Your task to perform on an android device: set the timer Image 0: 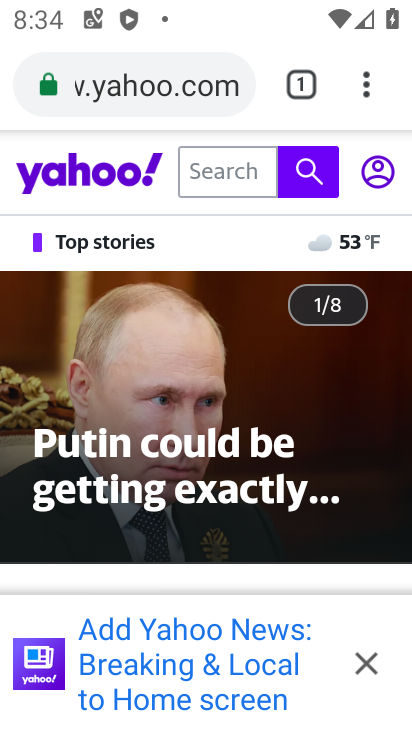
Step 0: press home button
Your task to perform on an android device: set the timer Image 1: 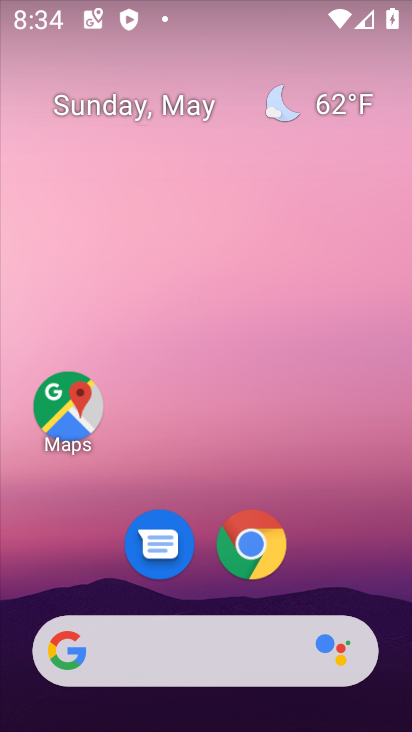
Step 1: drag from (298, 561) to (197, 186)
Your task to perform on an android device: set the timer Image 2: 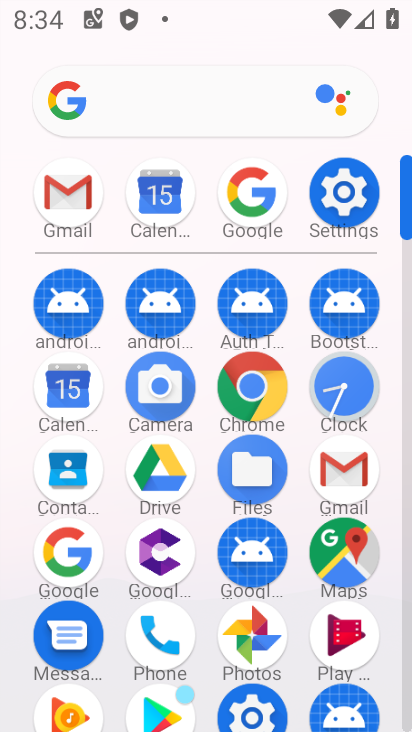
Step 2: click (339, 400)
Your task to perform on an android device: set the timer Image 3: 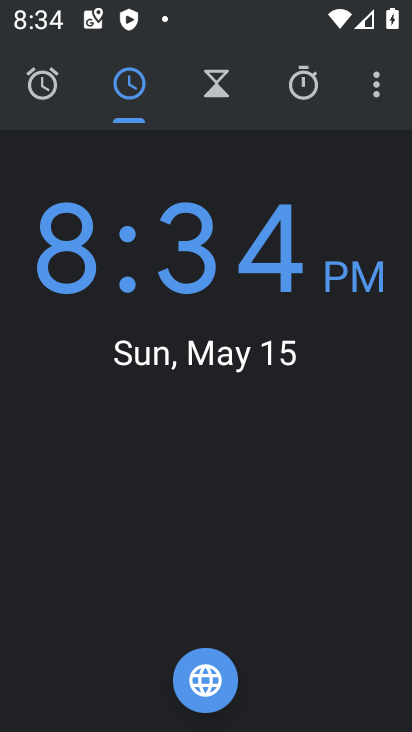
Step 3: click (225, 86)
Your task to perform on an android device: set the timer Image 4: 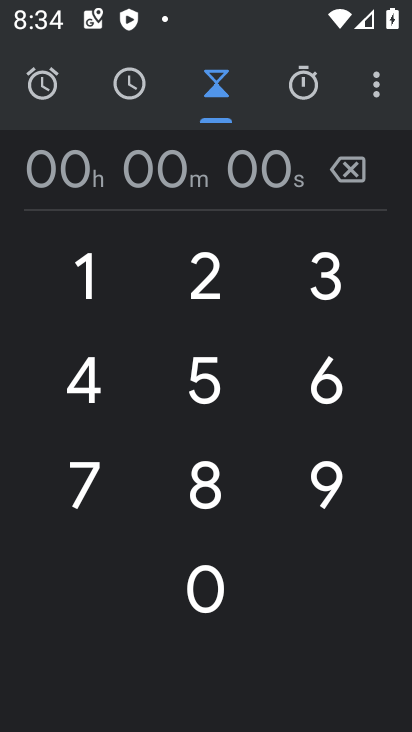
Step 4: click (197, 309)
Your task to perform on an android device: set the timer Image 5: 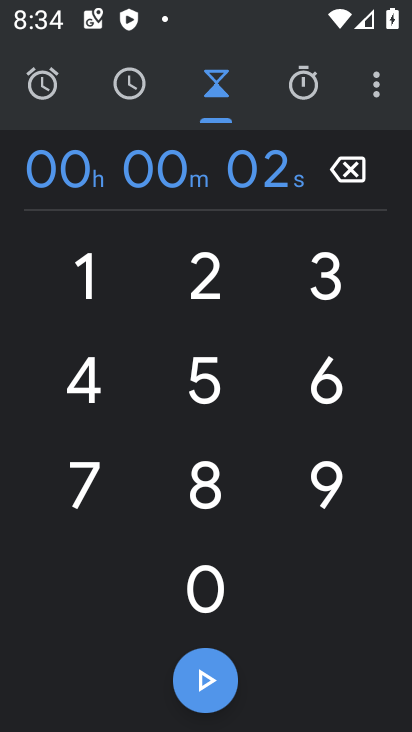
Step 5: click (219, 591)
Your task to perform on an android device: set the timer Image 6: 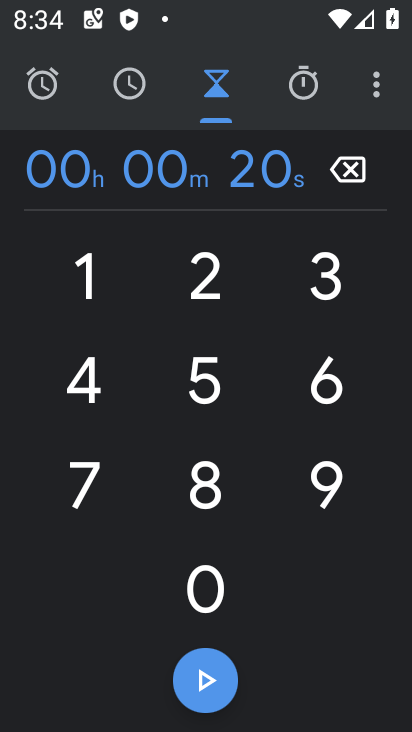
Step 6: click (203, 279)
Your task to perform on an android device: set the timer Image 7: 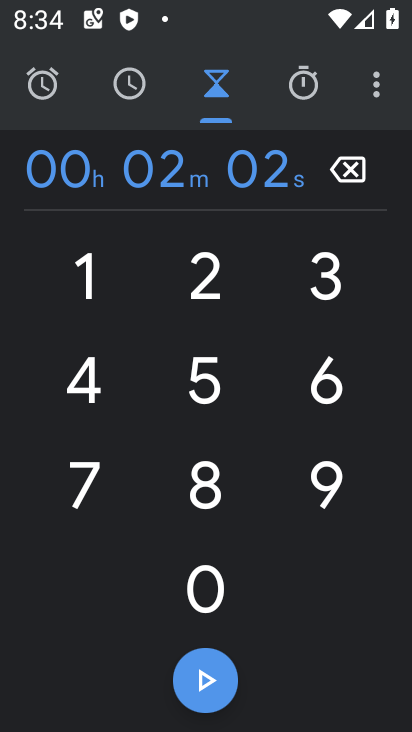
Step 7: click (196, 594)
Your task to perform on an android device: set the timer Image 8: 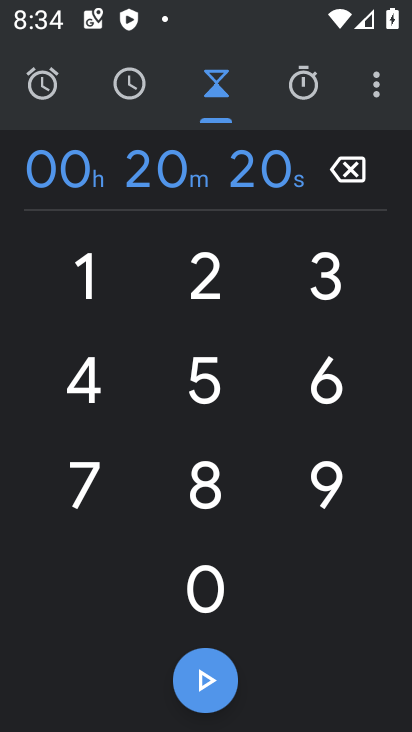
Step 8: click (211, 685)
Your task to perform on an android device: set the timer Image 9: 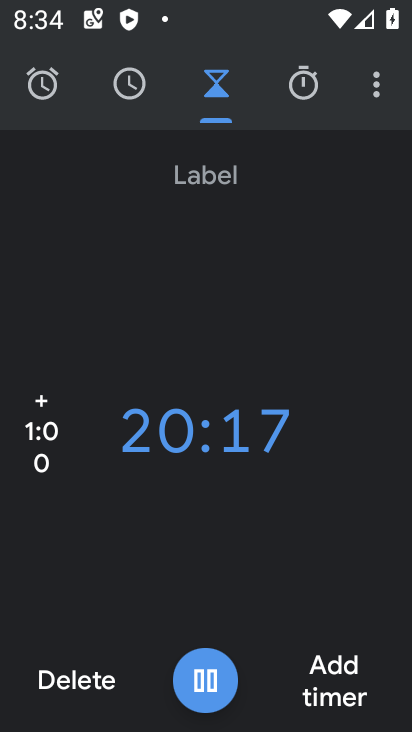
Step 9: task complete